Your task to perform on an android device: make emails show in primary in the gmail app Image 0: 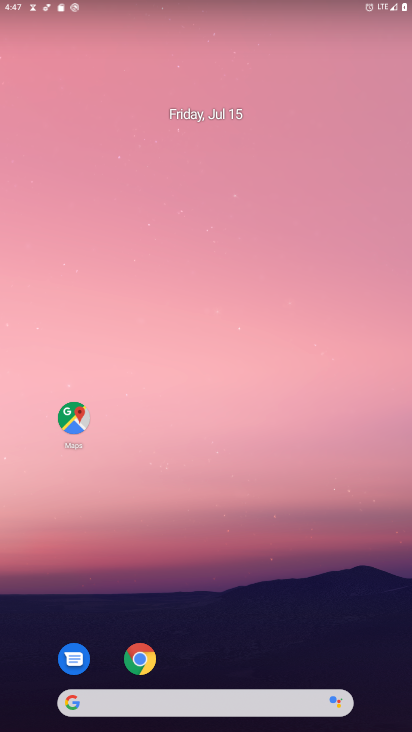
Step 0: drag from (301, 626) to (373, 122)
Your task to perform on an android device: make emails show in primary in the gmail app Image 1: 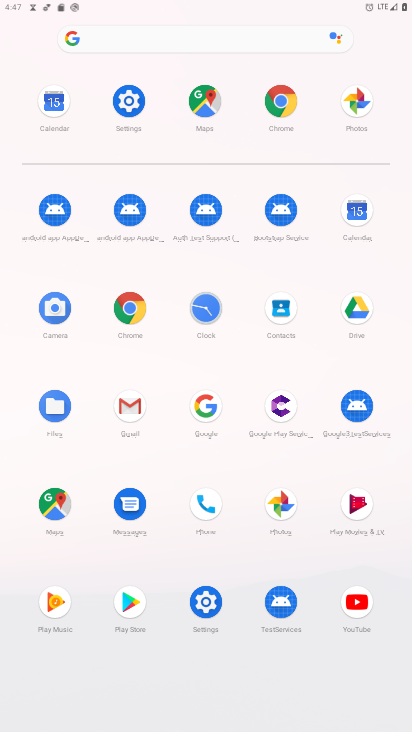
Step 1: click (117, 412)
Your task to perform on an android device: make emails show in primary in the gmail app Image 2: 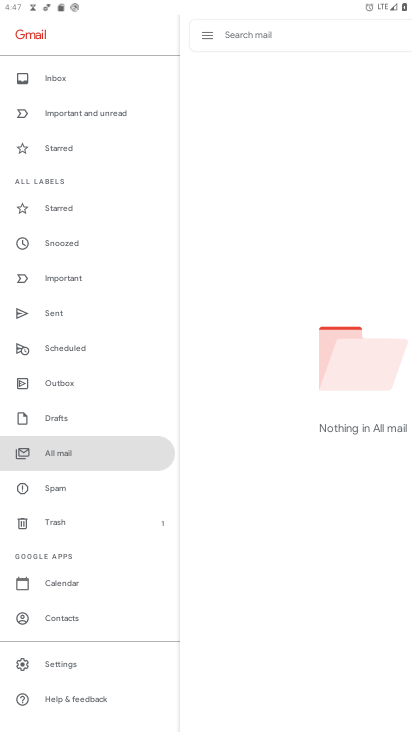
Step 2: click (61, 663)
Your task to perform on an android device: make emails show in primary in the gmail app Image 3: 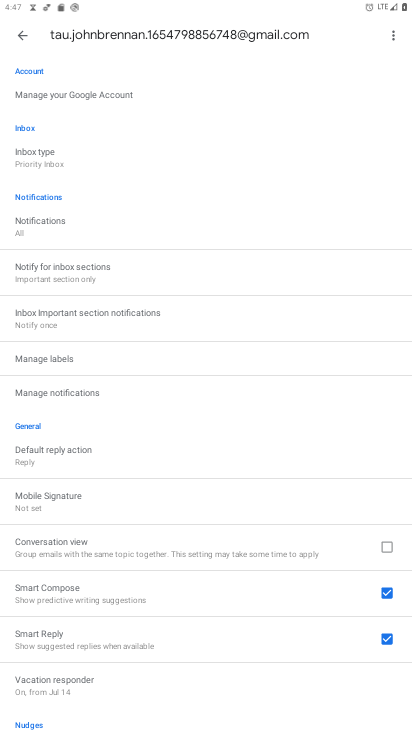
Step 3: click (70, 148)
Your task to perform on an android device: make emails show in primary in the gmail app Image 4: 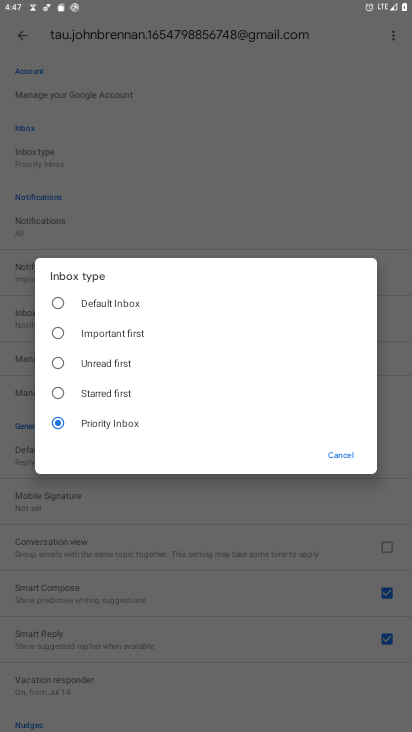
Step 4: click (52, 299)
Your task to perform on an android device: make emails show in primary in the gmail app Image 5: 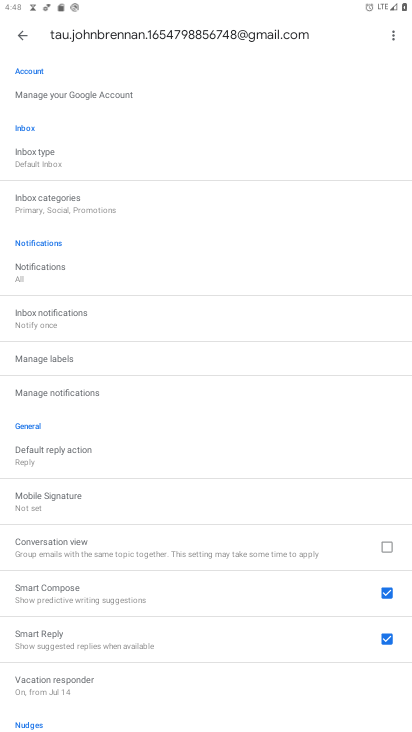
Step 5: press back button
Your task to perform on an android device: make emails show in primary in the gmail app Image 6: 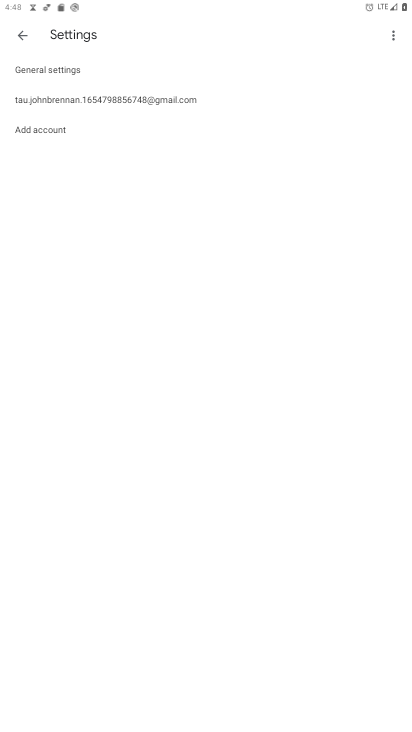
Step 6: press back button
Your task to perform on an android device: make emails show in primary in the gmail app Image 7: 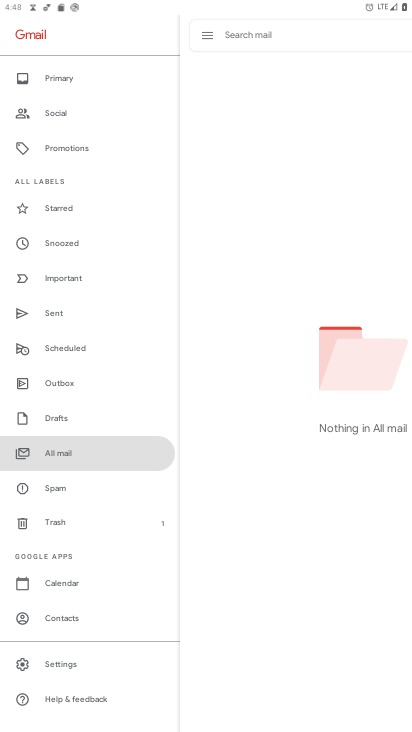
Step 7: click (79, 81)
Your task to perform on an android device: make emails show in primary in the gmail app Image 8: 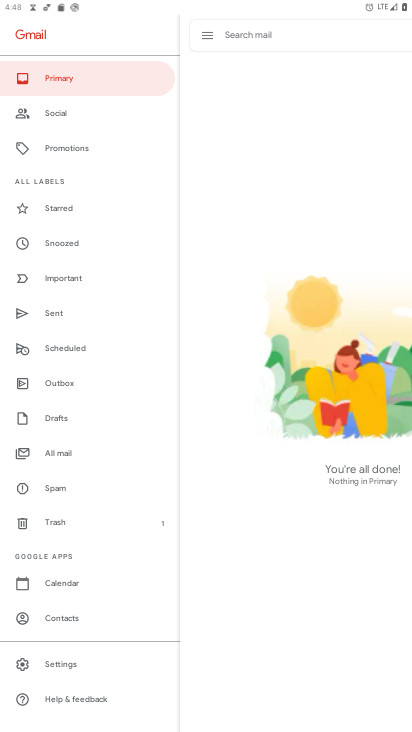
Step 8: task complete